Your task to perform on an android device: Open accessibility settings Image 0: 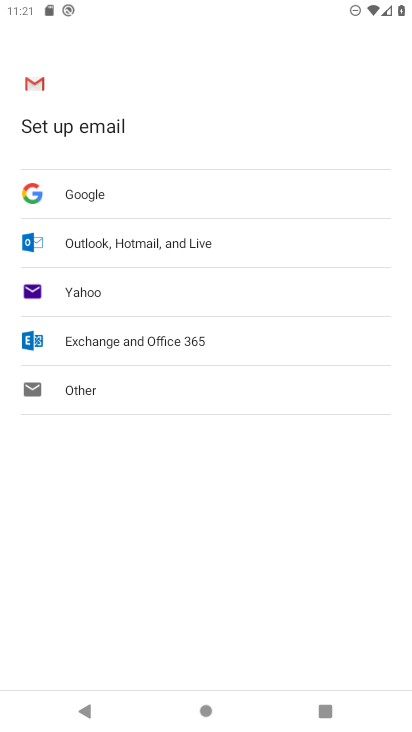
Step 0: press home button
Your task to perform on an android device: Open accessibility settings Image 1: 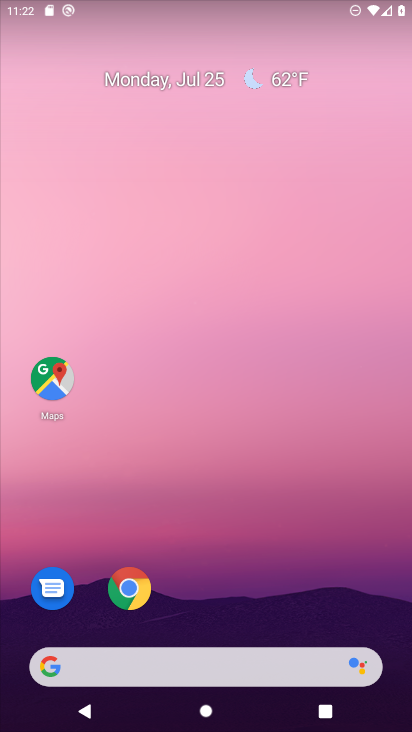
Step 1: drag from (20, 656) to (286, 66)
Your task to perform on an android device: Open accessibility settings Image 2: 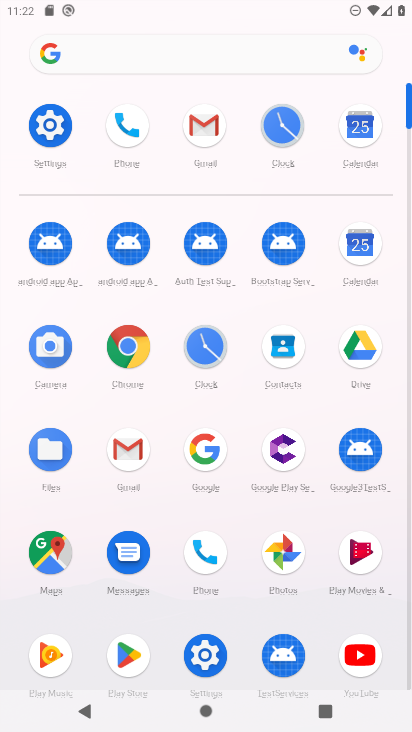
Step 2: click (61, 128)
Your task to perform on an android device: Open accessibility settings Image 3: 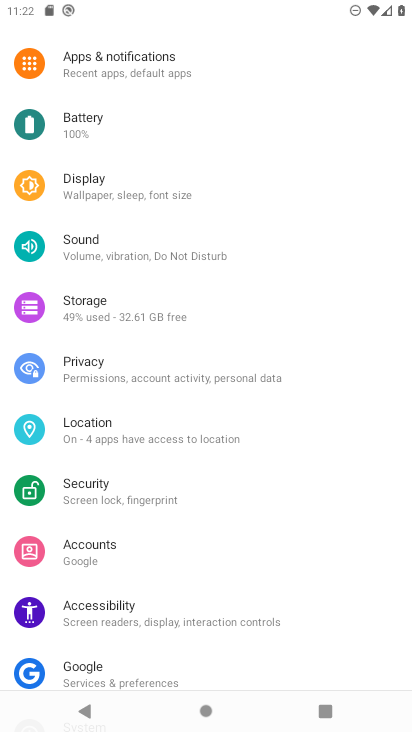
Step 3: click (91, 606)
Your task to perform on an android device: Open accessibility settings Image 4: 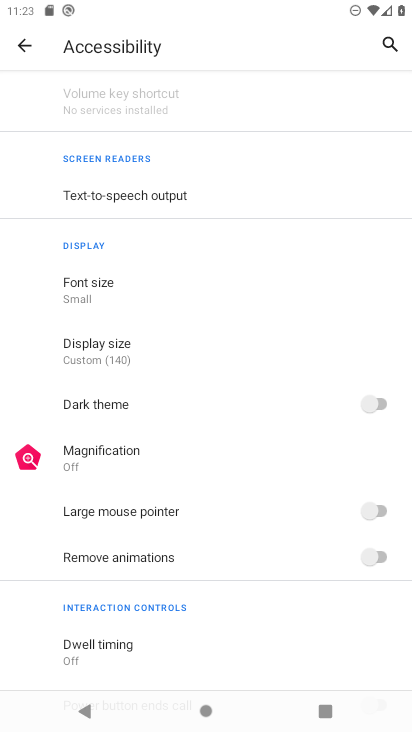
Step 4: task complete